Your task to perform on an android device: Go to settings Image 0: 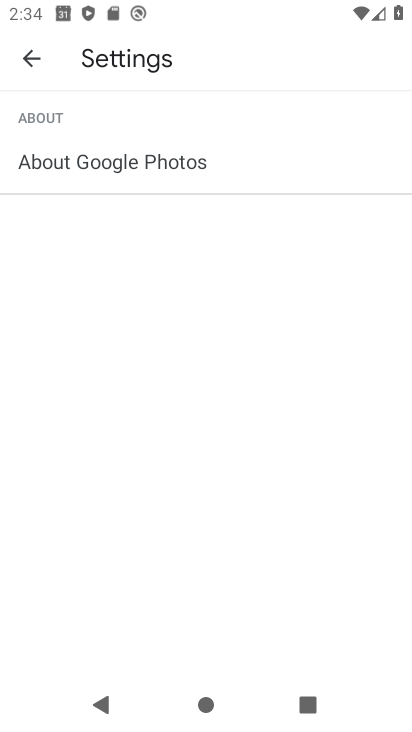
Step 0: task complete